Your task to perform on an android device: delete the emails in spam in the gmail app Image 0: 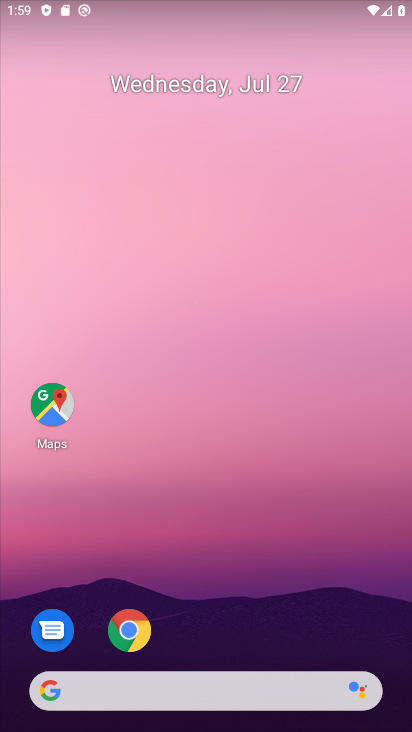
Step 0: drag from (268, 638) to (225, 232)
Your task to perform on an android device: delete the emails in spam in the gmail app Image 1: 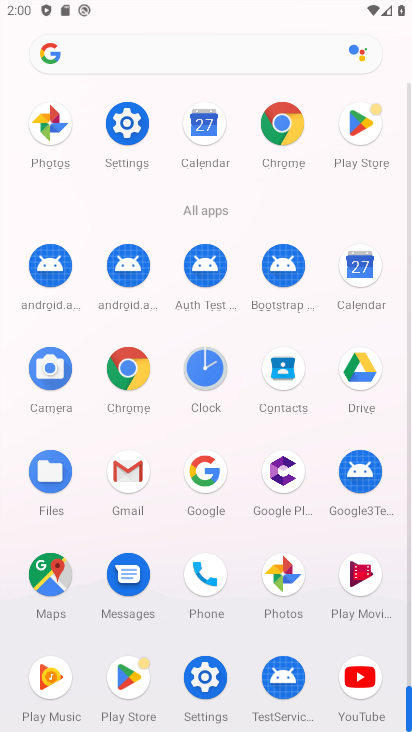
Step 1: click (116, 474)
Your task to perform on an android device: delete the emails in spam in the gmail app Image 2: 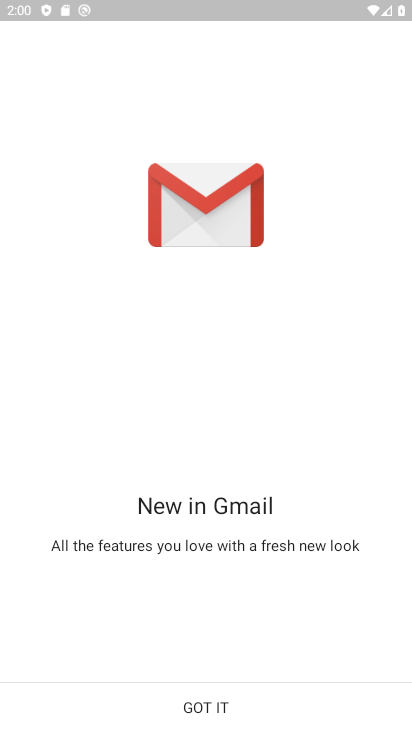
Step 2: click (262, 710)
Your task to perform on an android device: delete the emails in spam in the gmail app Image 3: 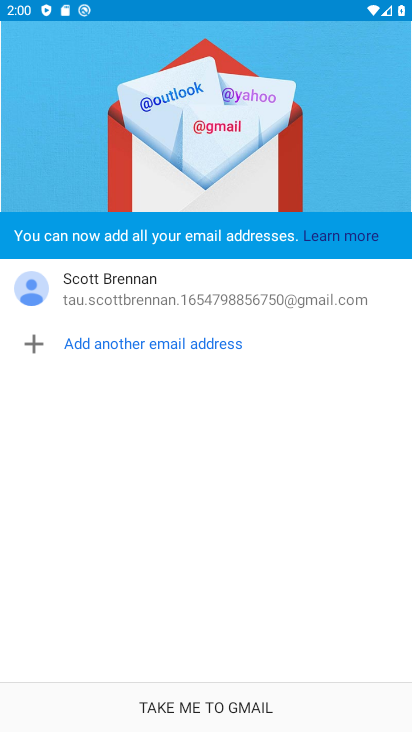
Step 3: click (242, 713)
Your task to perform on an android device: delete the emails in spam in the gmail app Image 4: 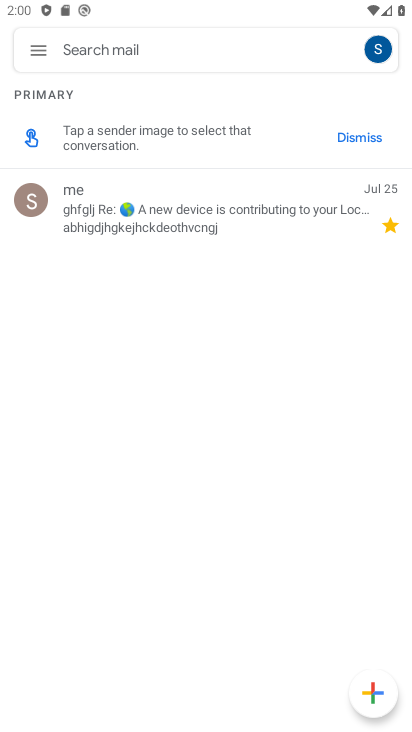
Step 4: click (108, 195)
Your task to perform on an android device: delete the emails in spam in the gmail app Image 5: 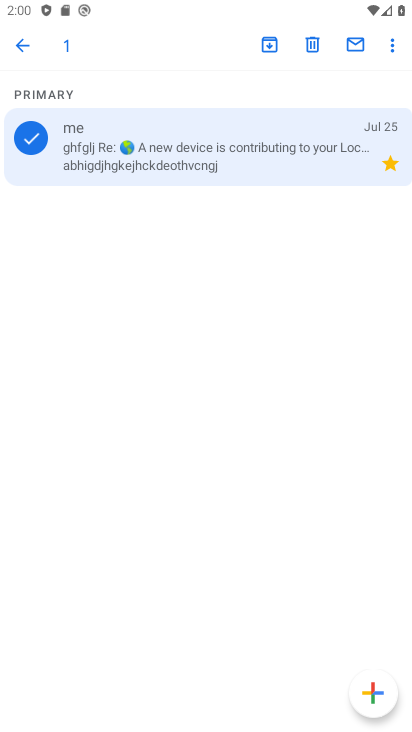
Step 5: click (313, 41)
Your task to perform on an android device: delete the emails in spam in the gmail app Image 6: 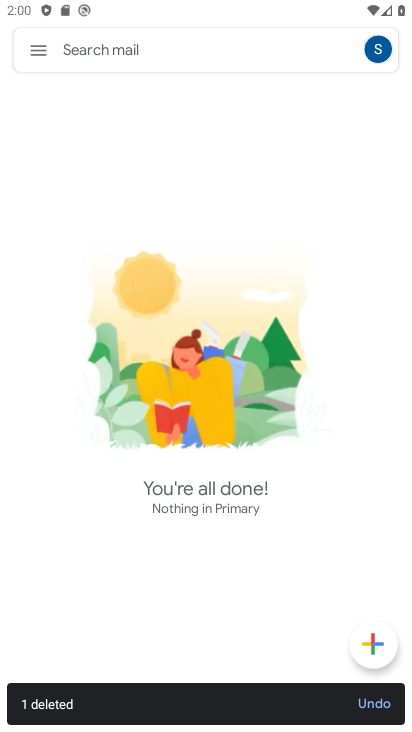
Step 6: task complete